Your task to perform on an android device: open chrome and create a bookmark for the current page Image 0: 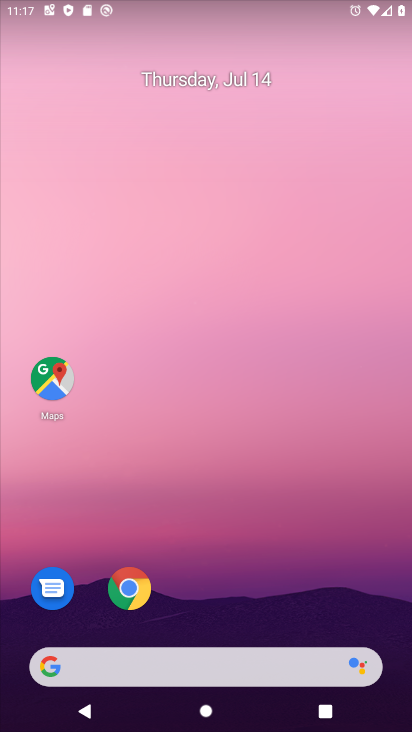
Step 0: click (128, 590)
Your task to perform on an android device: open chrome and create a bookmark for the current page Image 1: 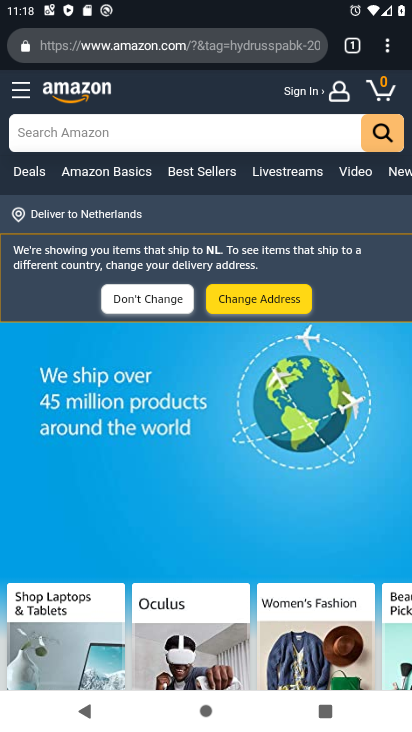
Step 1: click (385, 50)
Your task to perform on an android device: open chrome and create a bookmark for the current page Image 2: 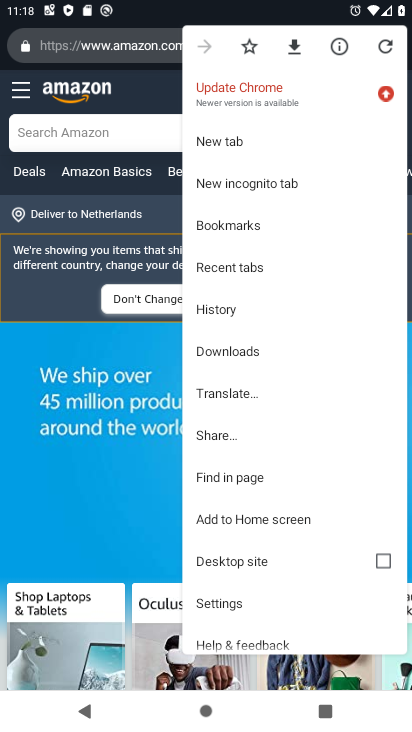
Step 2: click (248, 48)
Your task to perform on an android device: open chrome and create a bookmark for the current page Image 3: 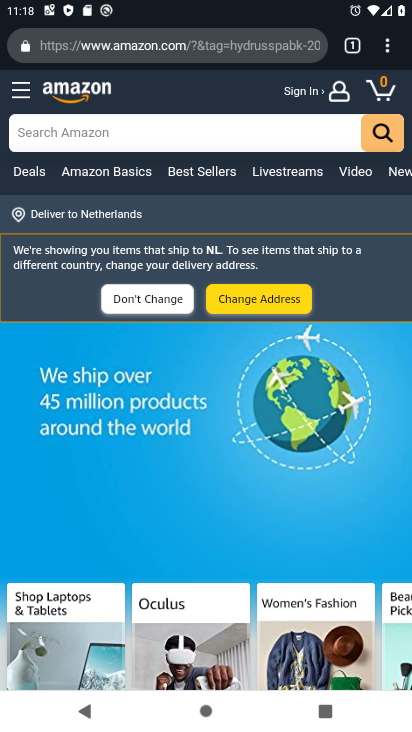
Step 3: task complete